Your task to perform on an android device: Turn off the flashlight Image 0: 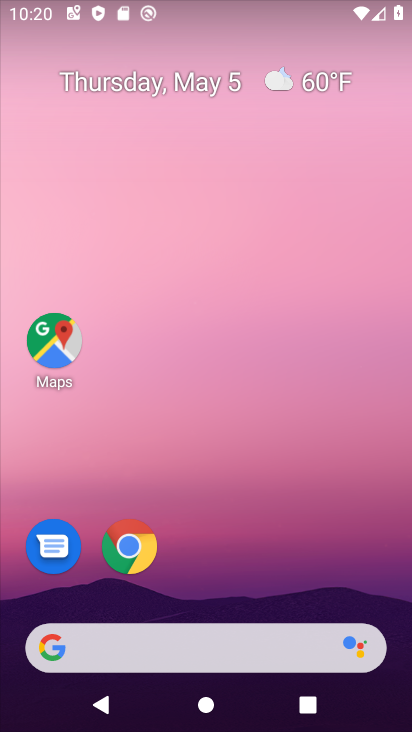
Step 0: drag from (263, 602) to (272, 229)
Your task to perform on an android device: Turn off the flashlight Image 1: 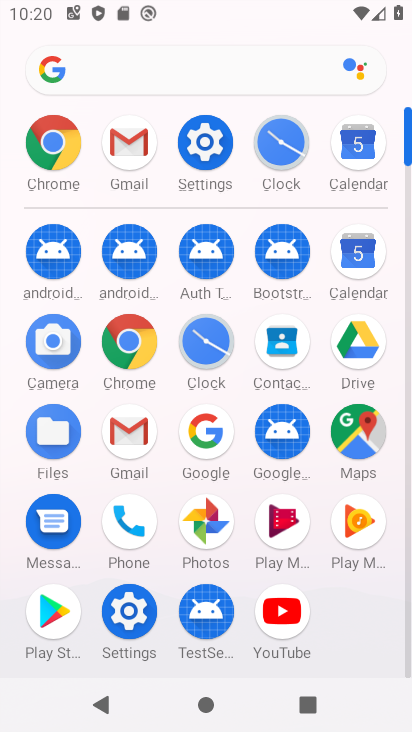
Step 1: click (117, 610)
Your task to perform on an android device: Turn off the flashlight Image 2: 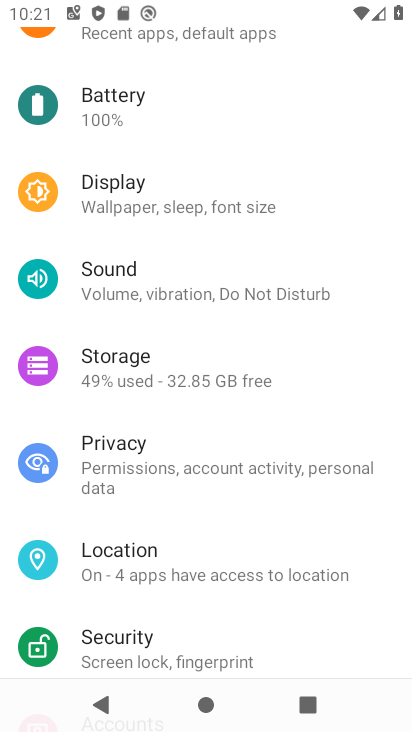
Step 2: task complete